Your task to perform on an android device: Search for "bose soundlink" on bestbuy, select the first entry, and add it to the cart. Image 0: 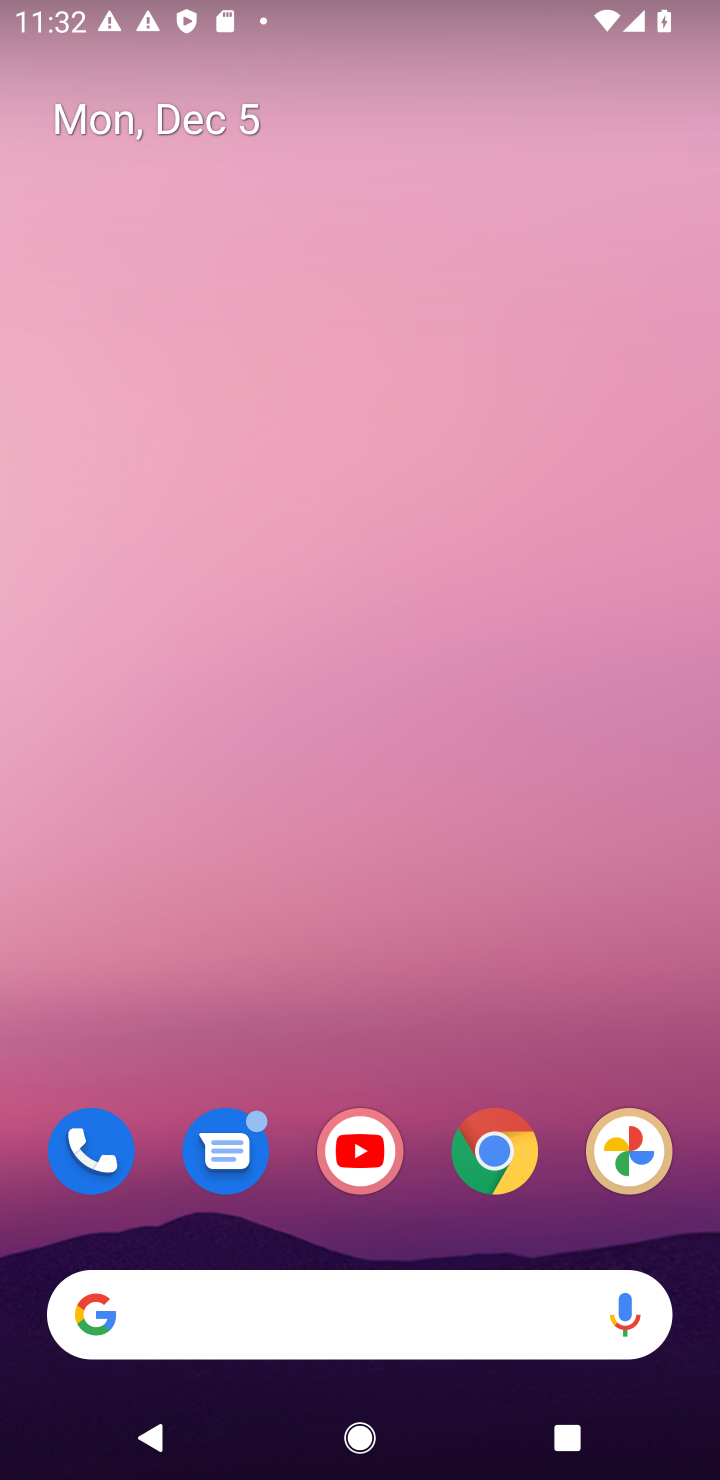
Step 0: click (496, 1167)
Your task to perform on an android device: Search for "bose soundlink" on bestbuy, select the first entry, and add it to the cart. Image 1: 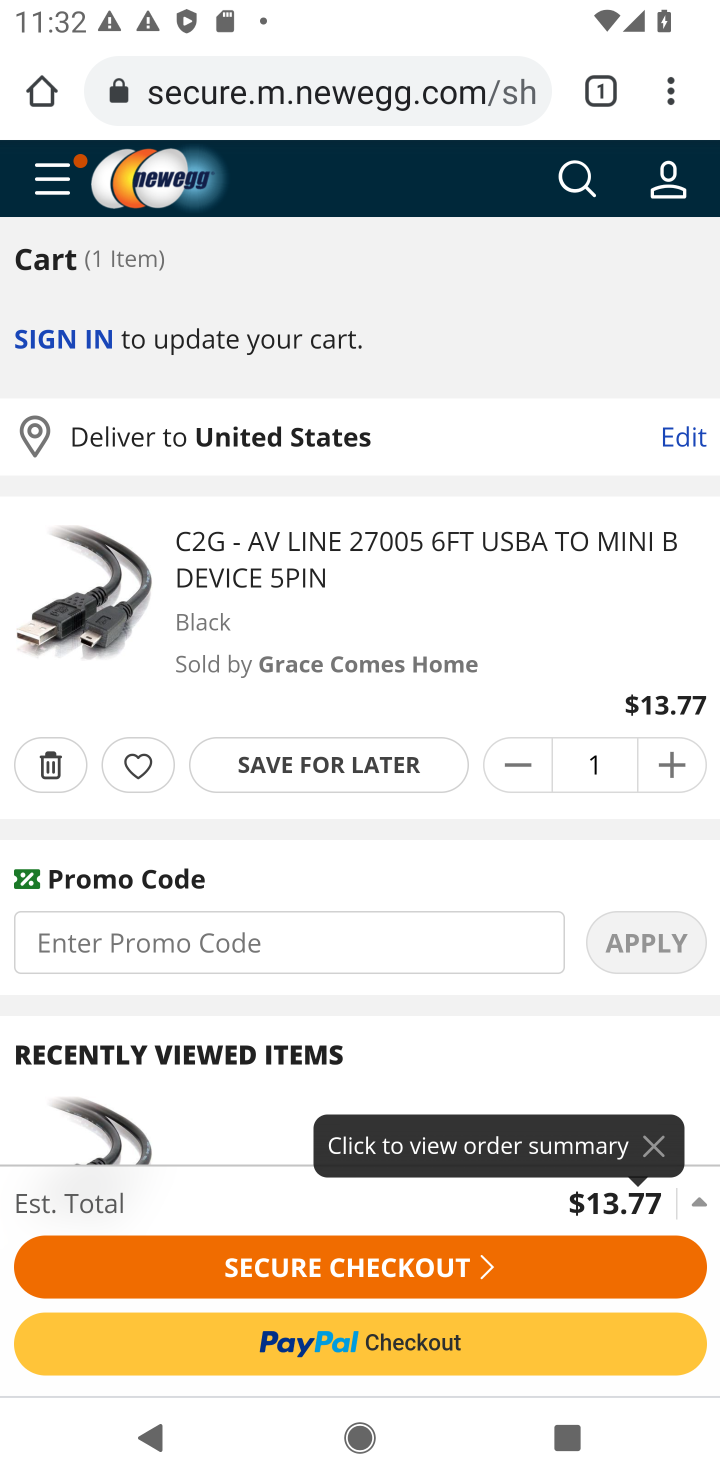
Step 1: click (281, 98)
Your task to perform on an android device: Search for "bose soundlink" on bestbuy, select the first entry, and add it to the cart. Image 2: 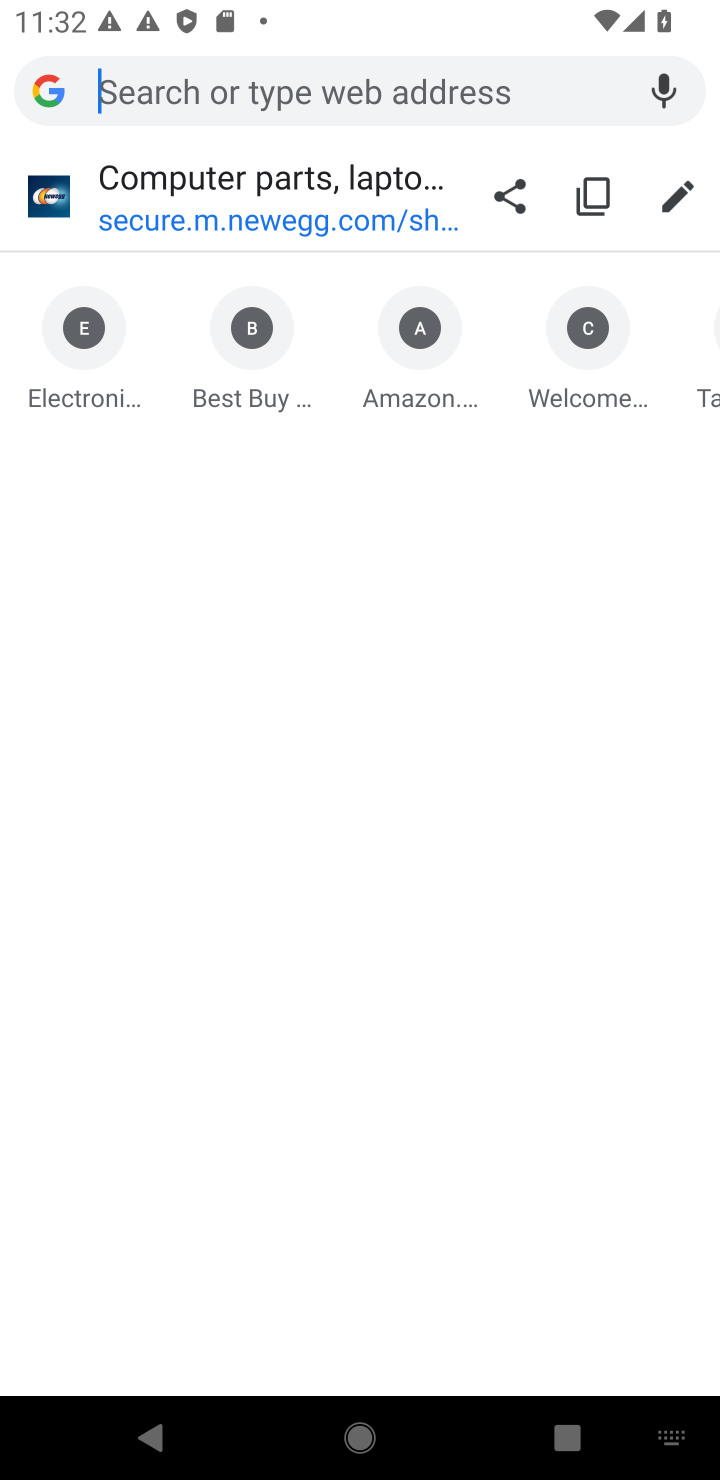
Step 2: click (263, 346)
Your task to perform on an android device: Search for "bose soundlink" on bestbuy, select the first entry, and add it to the cart. Image 3: 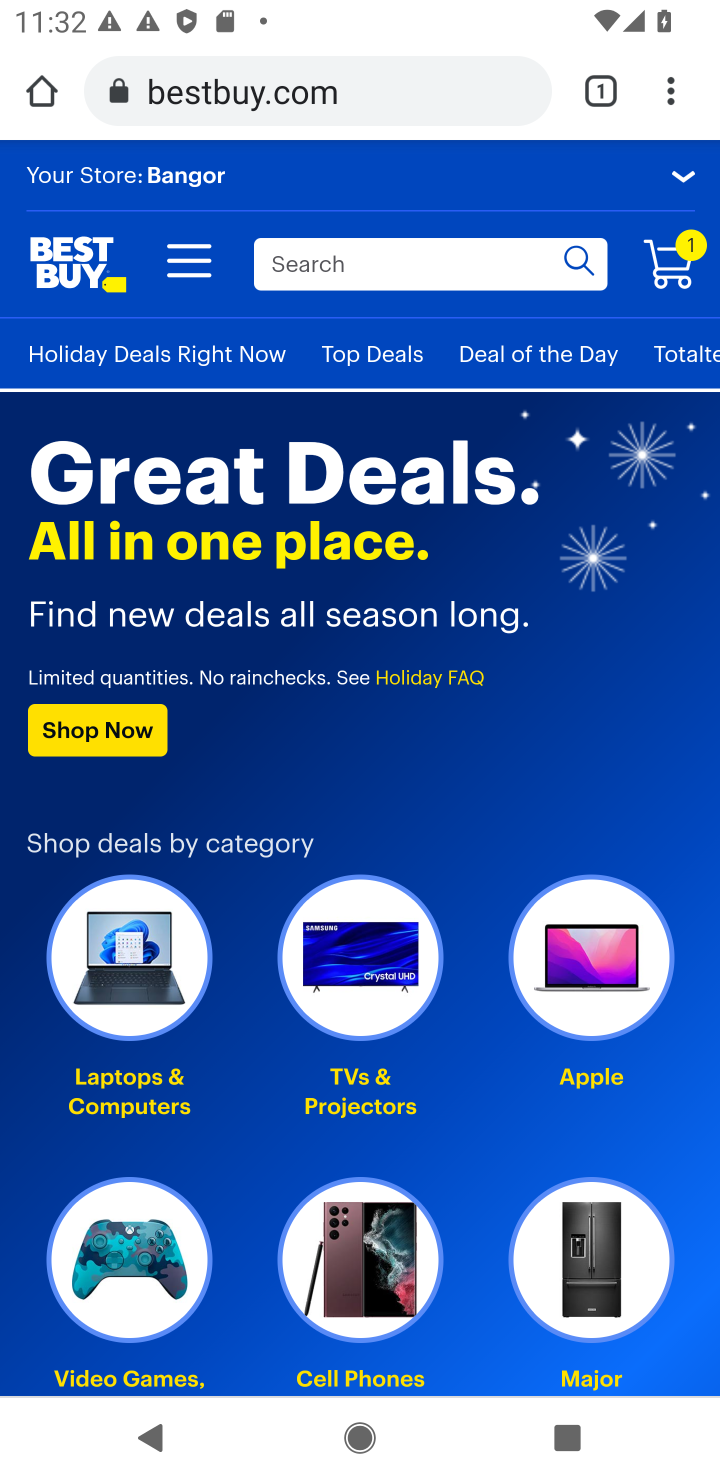
Step 3: click (291, 261)
Your task to perform on an android device: Search for "bose soundlink" on bestbuy, select the first entry, and add it to the cart. Image 4: 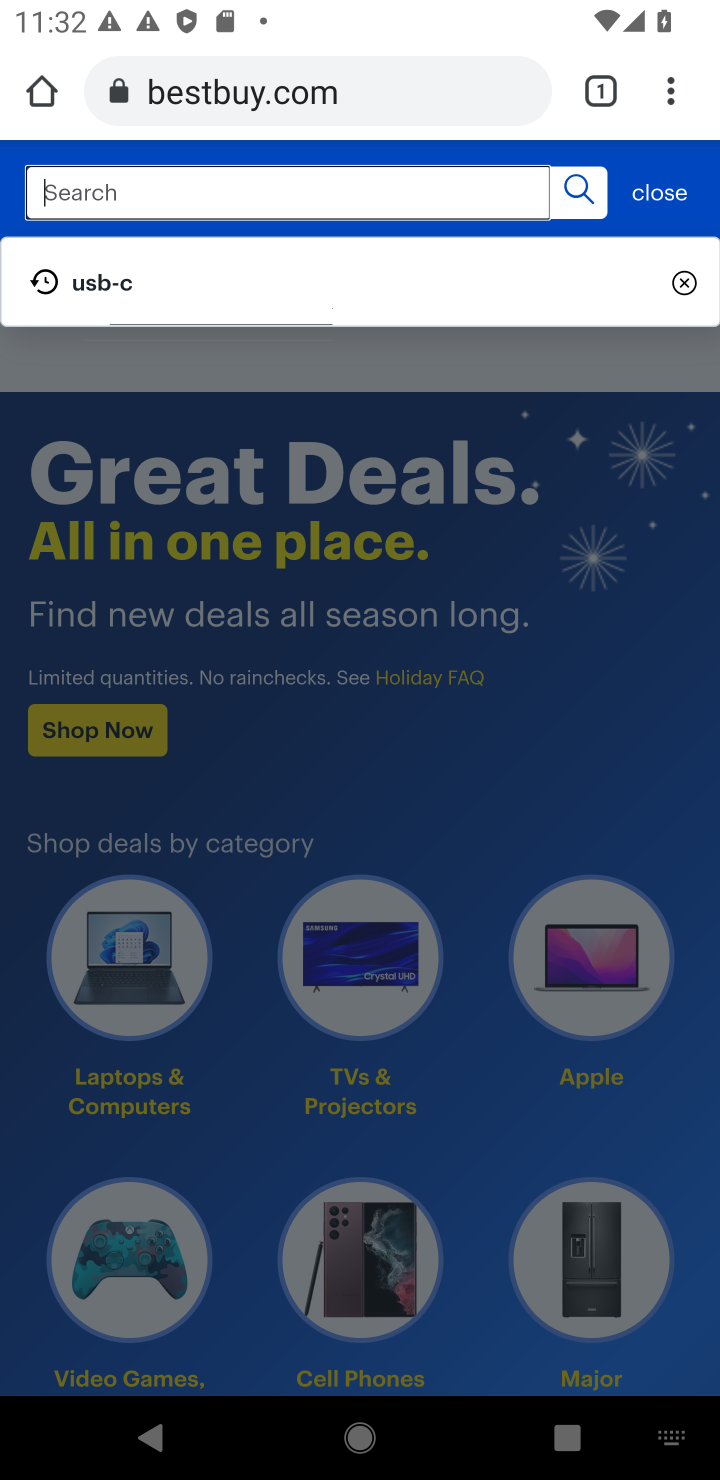
Step 4: type "bose soundlink"
Your task to perform on an android device: Search for "bose soundlink" on bestbuy, select the first entry, and add it to the cart. Image 5: 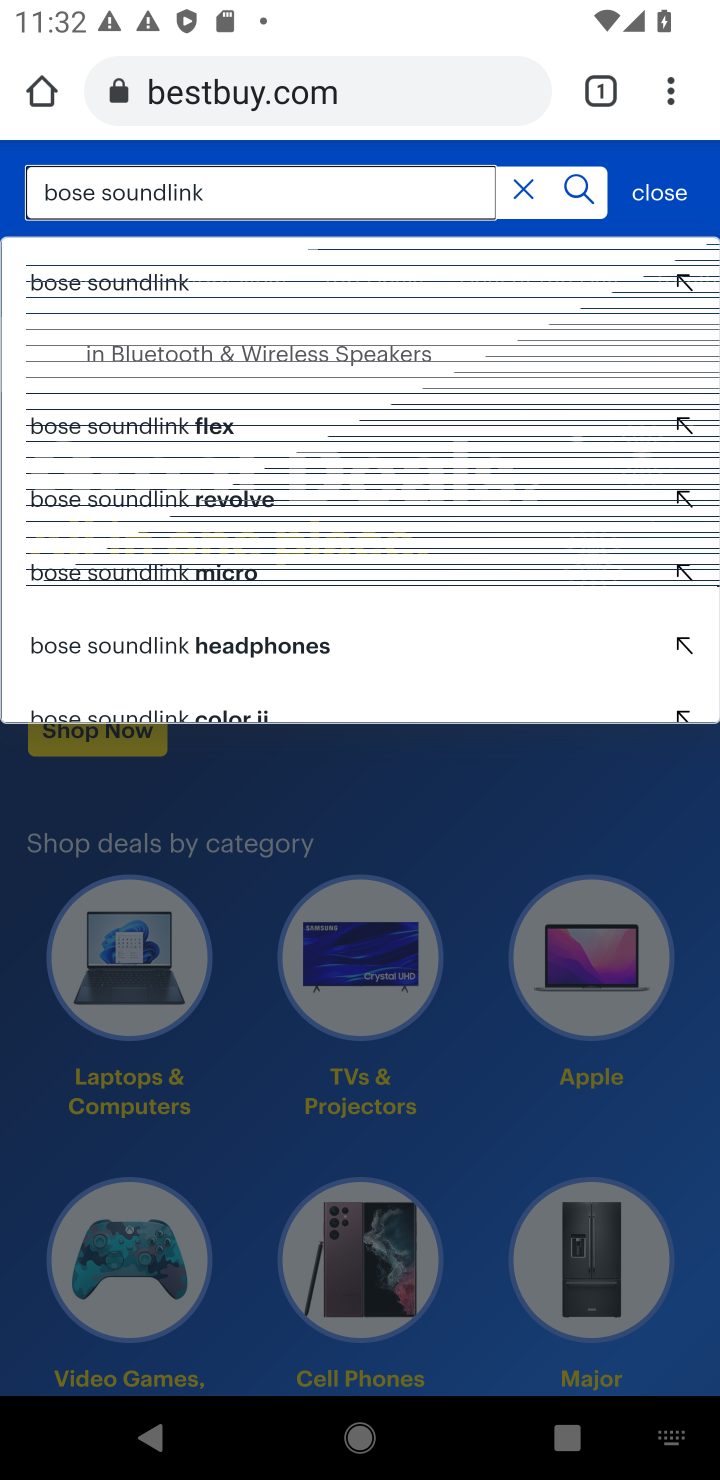
Step 5: click (92, 286)
Your task to perform on an android device: Search for "bose soundlink" on bestbuy, select the first entry, and add it to the cart. Image 6: 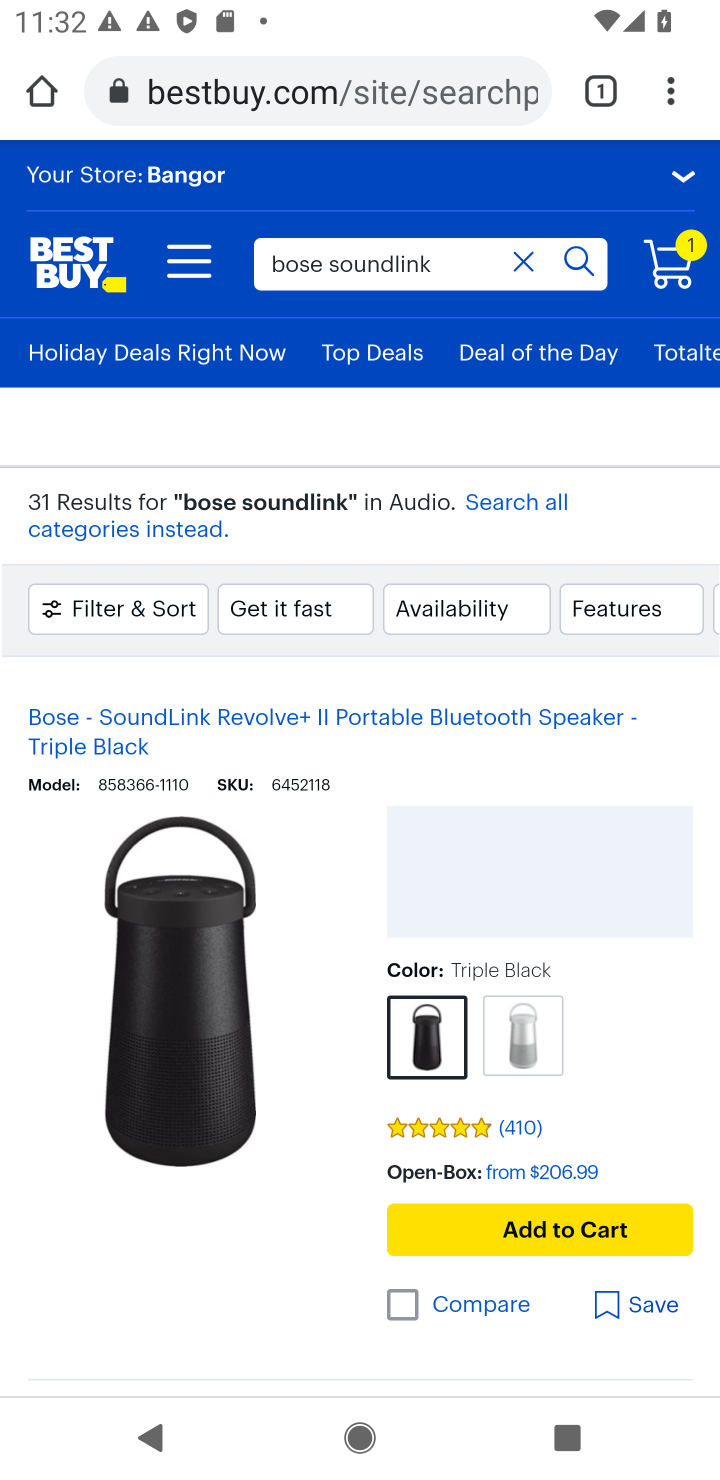
Step 6: drag from (258, 1098) to (226, 567)
Your task to perform on an android device: Search for "bose soundlink" on bestbuy, select the first entry, and add it to the cart. Image 7: 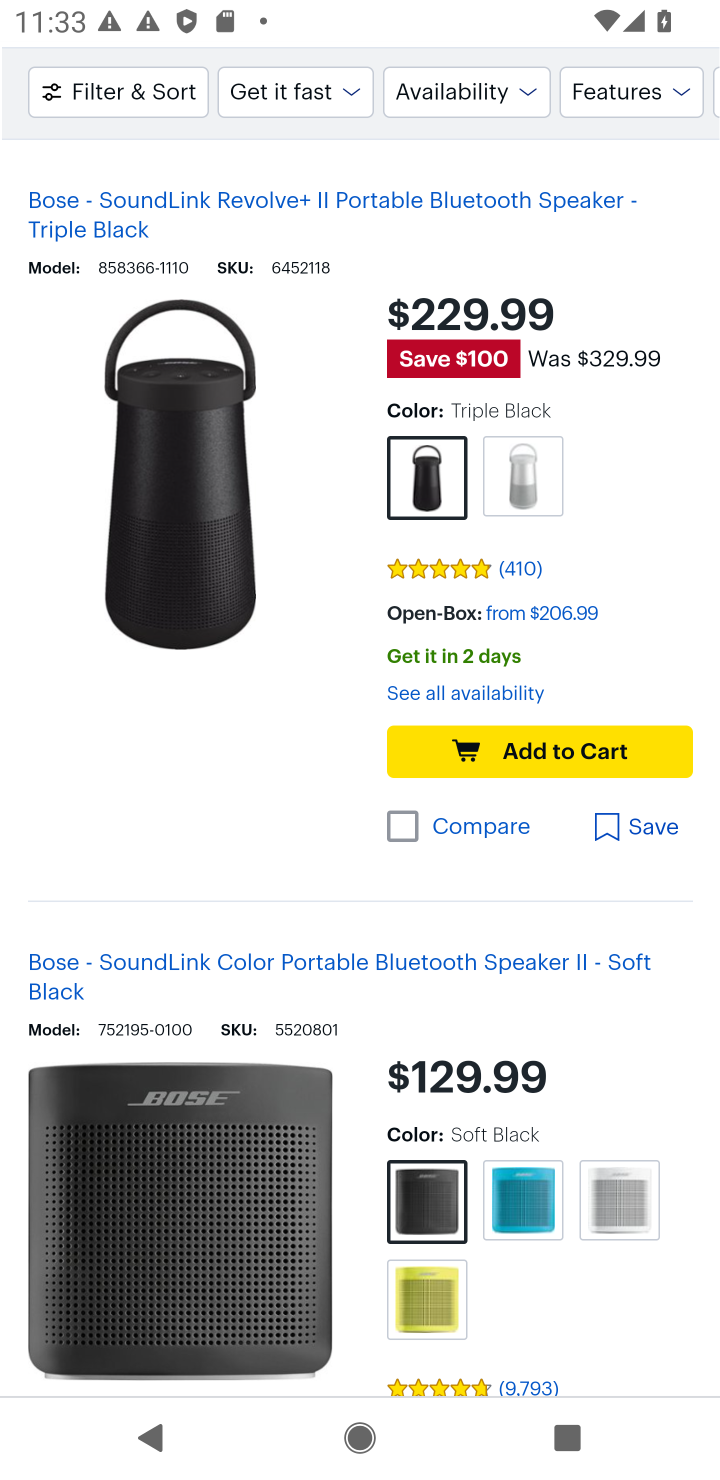
Step 7: click (525, 744)
Your task to perform on an android device: Search for "bose soundlink" on bestbuy, select the first entry, and add it to the cart. Image 8: 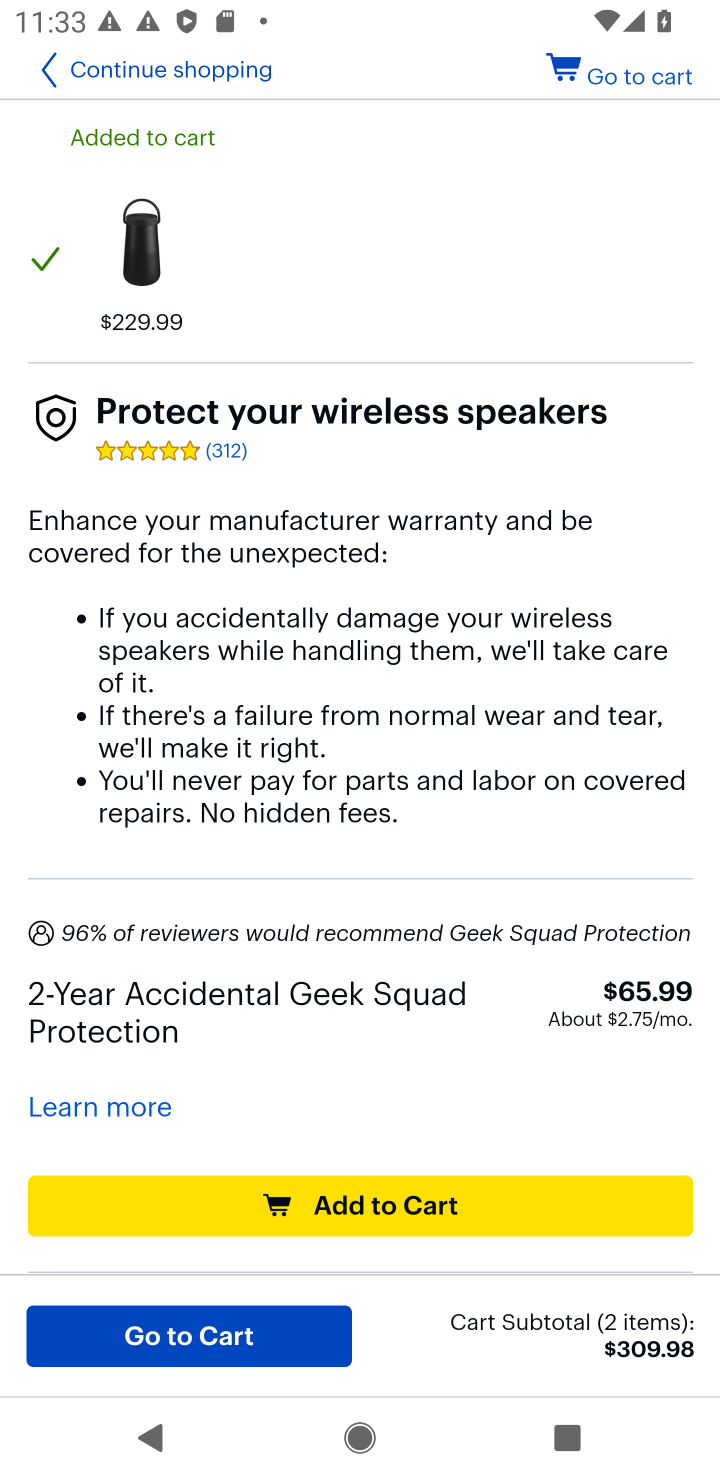
Step 8: task complete